Your task to perform on an android device: turn off translation in the chrome app Image 0: 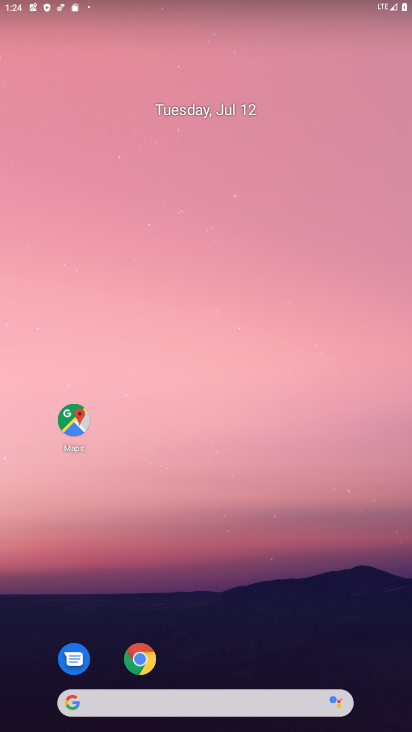
Step 0: click (138, 656)
Your task to perform on an android device: turn off translation in the chrome app Image 1: 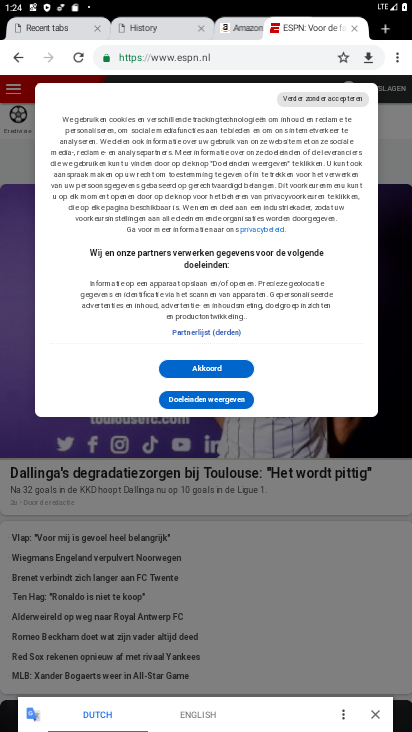
Step 1: click (397, 58)
Your task to perform on an android device: turn off translation in the chrome app Image 2: 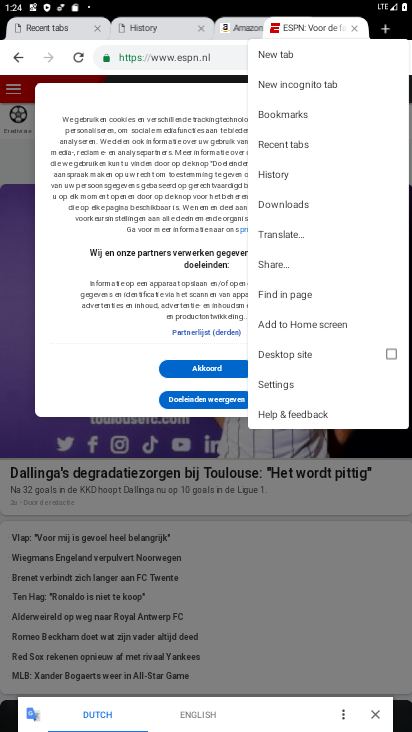
Step 2: click (278, 385)
Your task to perform on an android device: turn off translation in the chrome app Image 3: 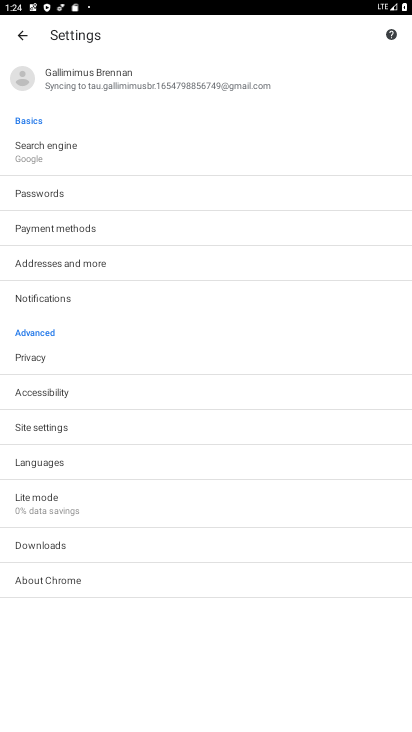
Step 3: click (35, 463)
Your task to perform on an android device: turn off translation in the chrome app Image 4: 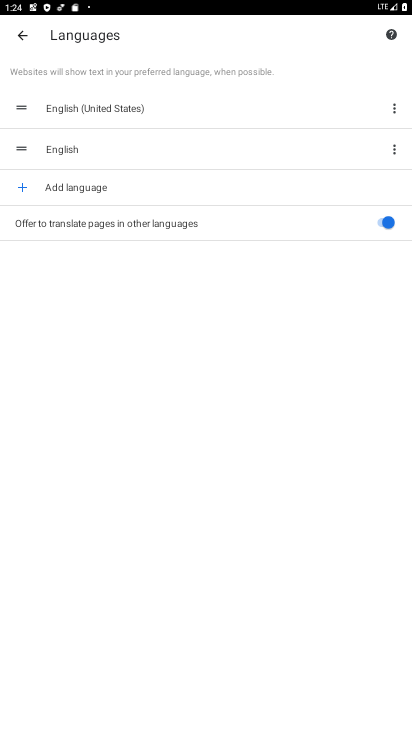
Step 4: click (385, 217)
Your task to perform on an android device: turn off translation in the chrome app Image 5: 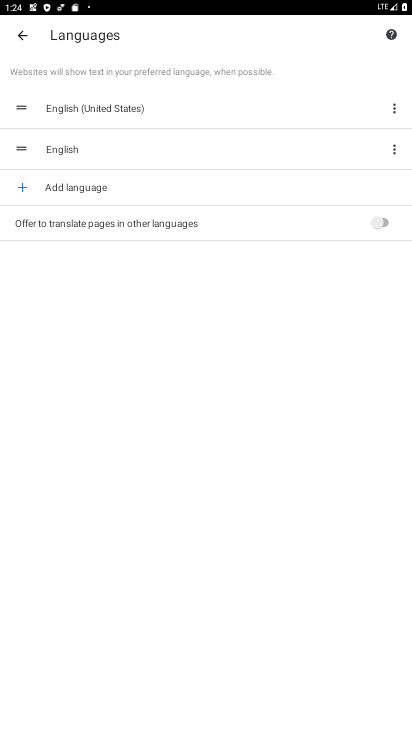
Step 5: task complete